Your task to perform on an android device: visit the assistant section in the google photos Image 0: 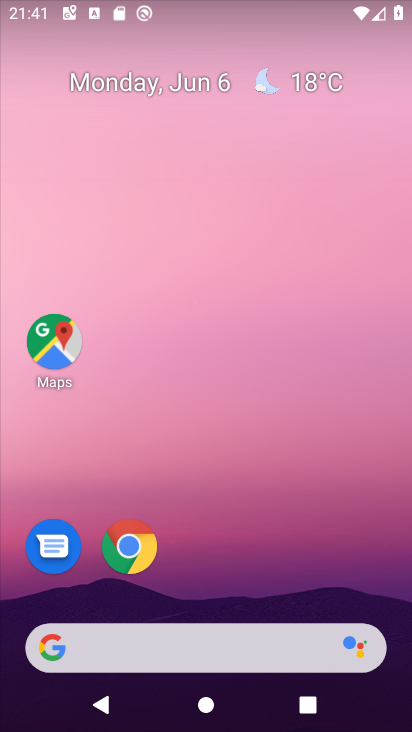
Step 0: drag from (369, 596) to (368, 26)
Your task to perform on an android device: visit the assistant section in the google photos Image 1: 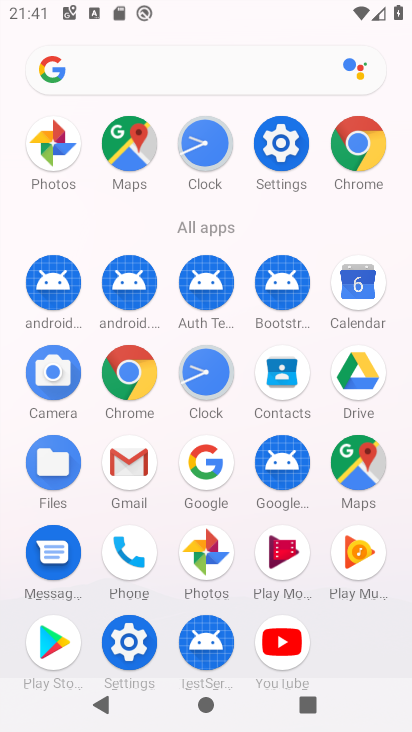
Step 1: click (203, 546)
Your task to perform on an android device: visit the assistant section in the google photos Image 2: 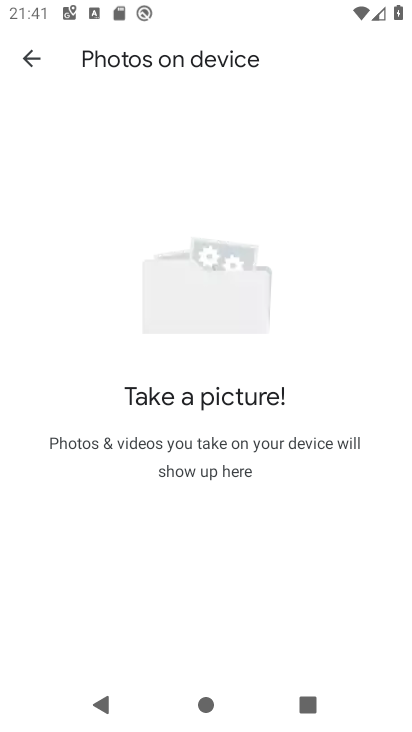
Step 2: press back button
Your task to perform on an android device: visit the assistant section in the google photos Image 3: 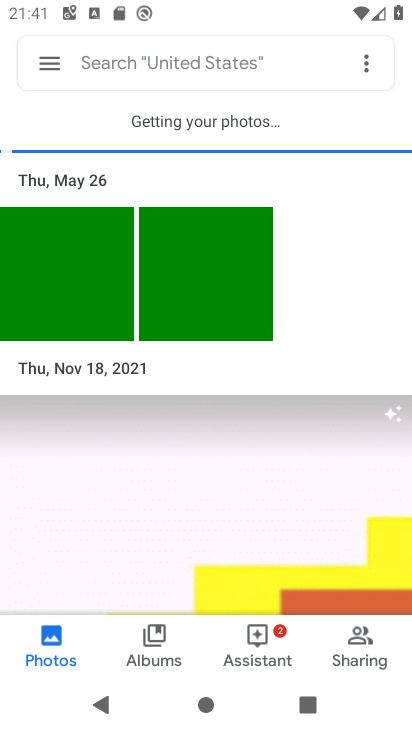
Step 3: click (254, 644)
Your task to perform on an android device: visit the assistant section in the google photos Image 4: 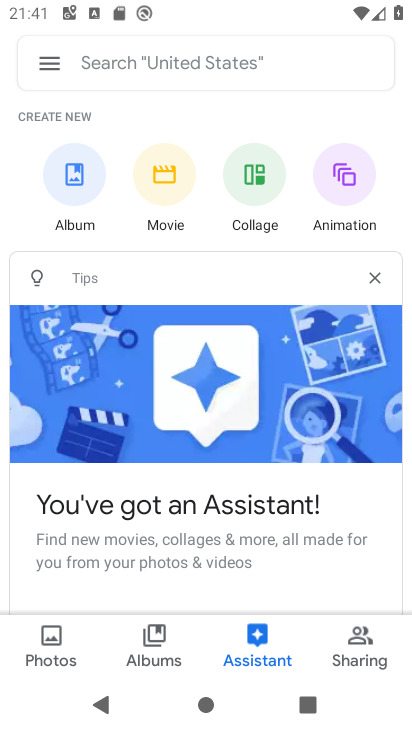
Step 4: task complete